Your task to perform on an android device: Show the shopping cart on walmart. Search for razer blade on walmart, select the first entry, add it to the cart, then select checkout. Image 0: 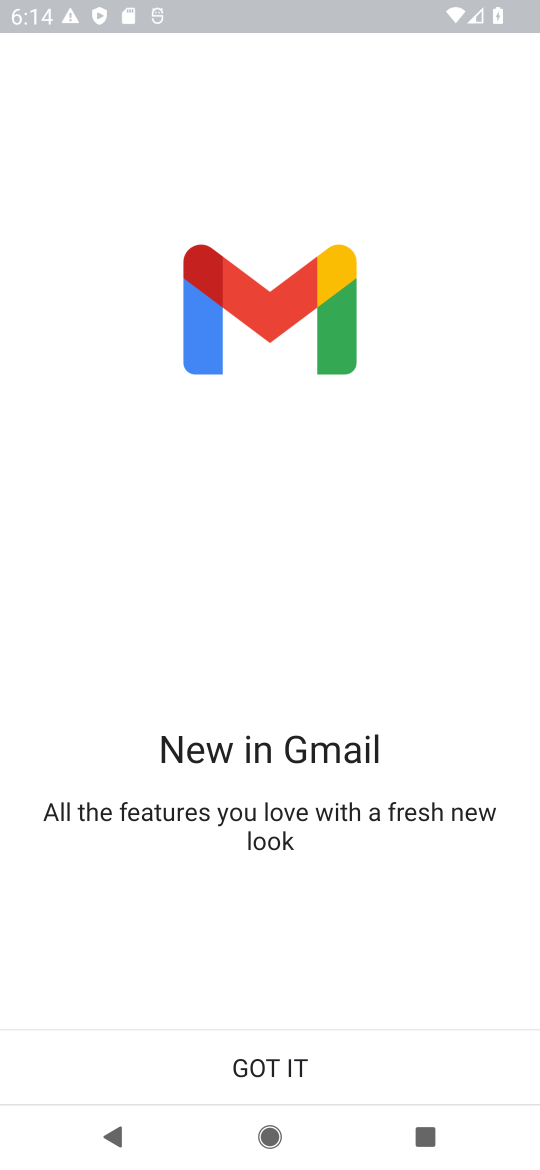
Step 0: press home button
Your task to perform on an android device: Show the shopping cart on walmart. Search for razer blade on walmart, select the first entry, add it to the cart, then select checkout. Image 1: 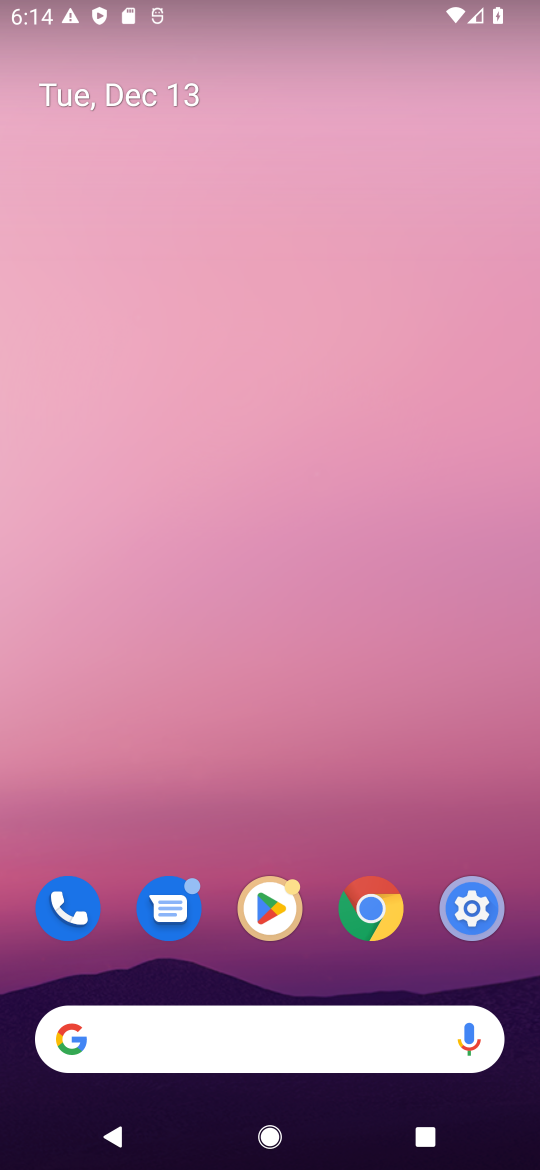
Step 1: click (112, 1031)
Your task to perform on an android device: Show the shopping cart on walmart. Search for razer blade on walmart, select the first entry, add it to the cart, then select checkout. Image 2: 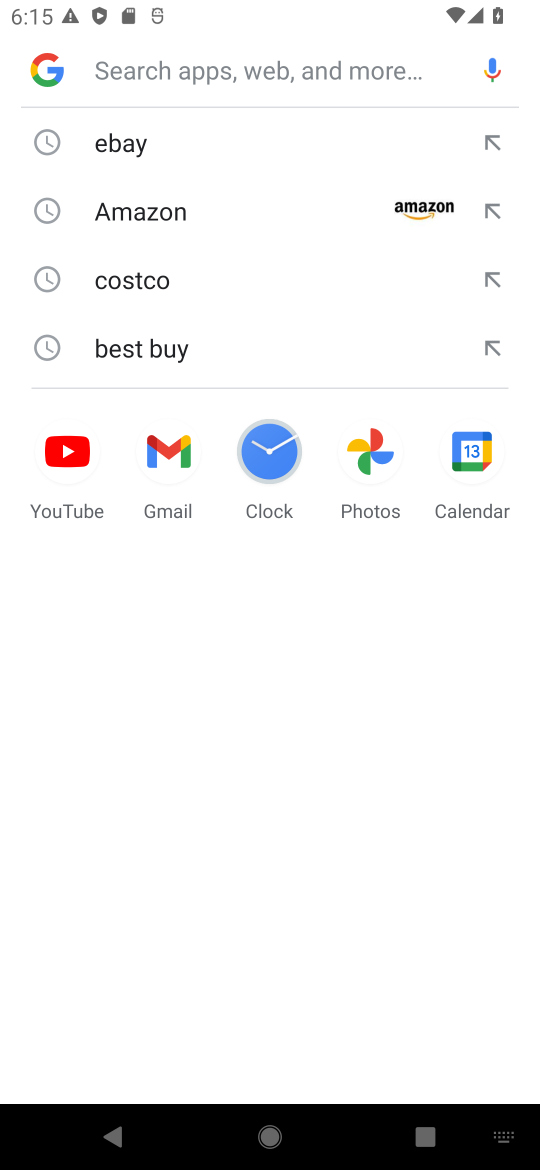
Step 2: type "walmart"
Your task to perform on an android device: Show the shopping cart on walmart. Search for razer blade on walmart, select the first entry, add it to the cart, then select checkout. Image 3: 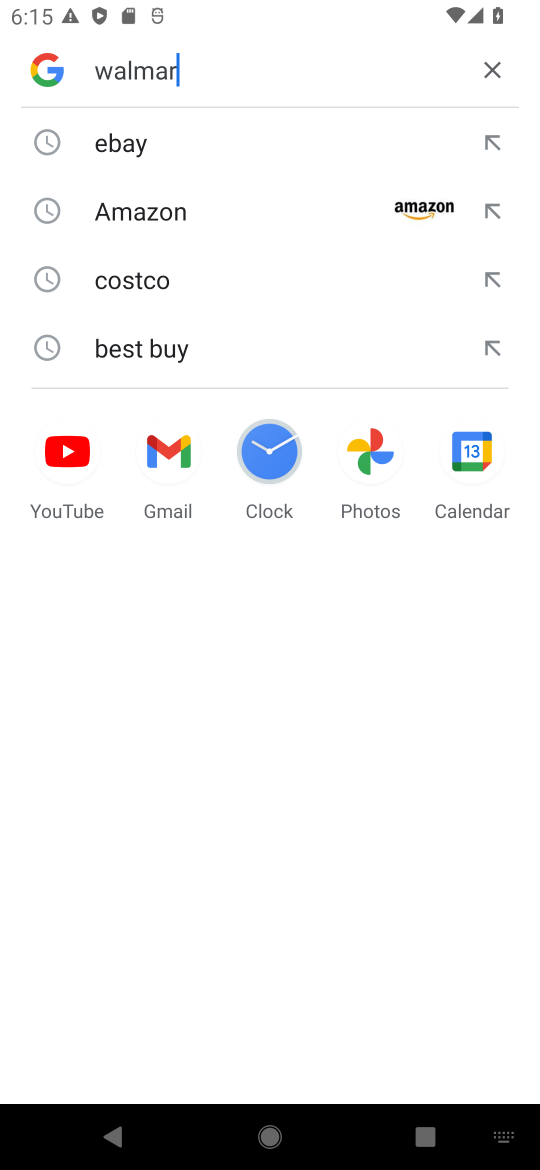
Step 3: press enter
Your task to perform on an android device: Show the shopping cart on walmart. Search for razer blade on walmart, select the first entry, add it to the cart, then select checkout. Image 4: 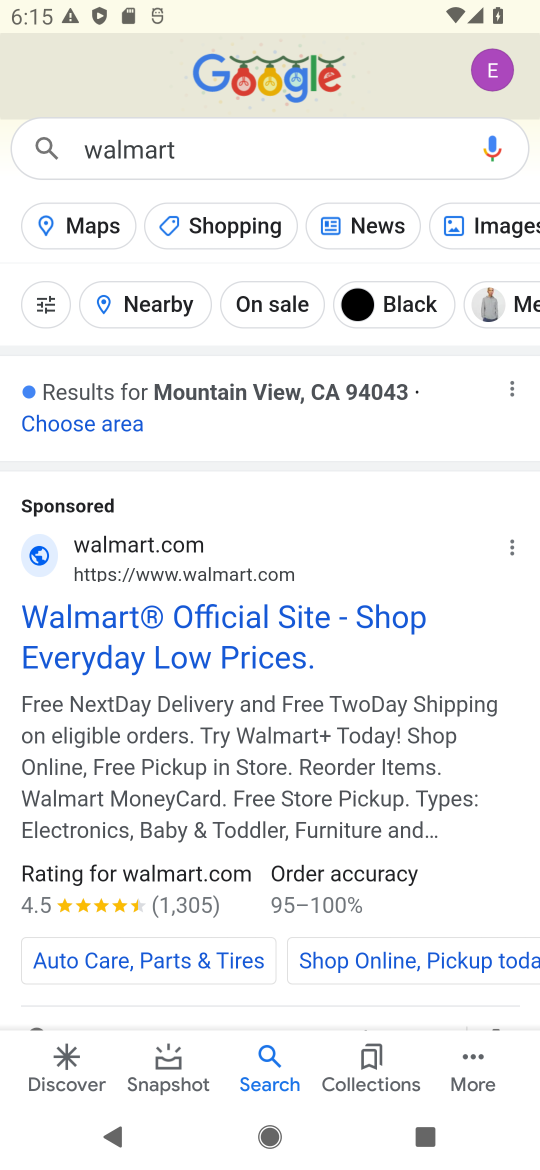
Step 4: click (191, 628)
Your task to perform on an android device: Show the shopping cart on walmart. Search for razer blade on walmart, select the first entry, add it to the cart, then select checkout. Image 5: 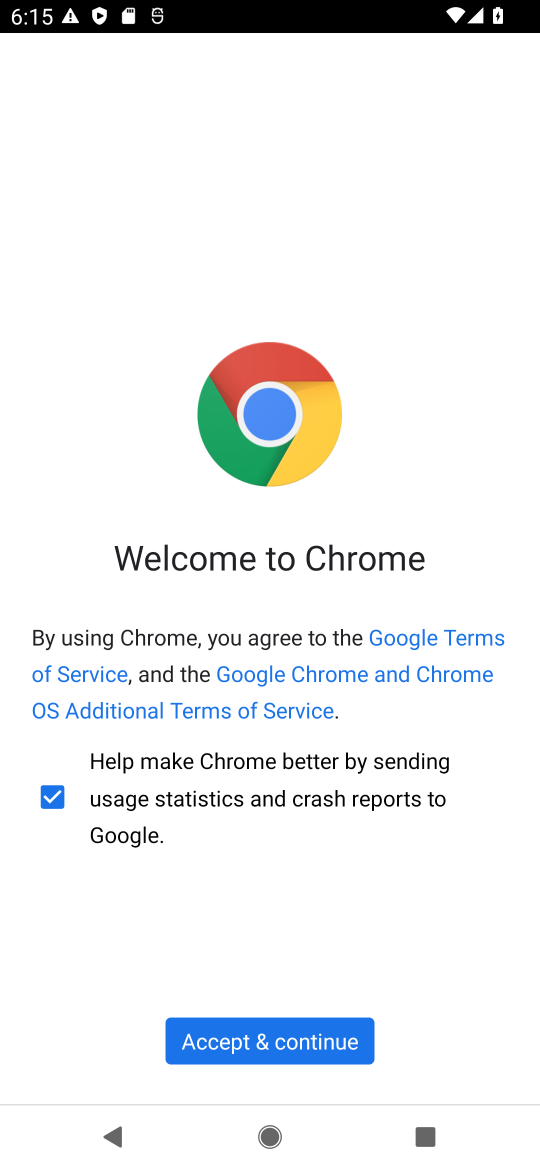
Step 5: click (230, 1045)
Your task to perform on an android device: Show the shopping cart on walmart. Search for razer blade on walmart, select the first entry, add it to the cart, then select checkout. Image 6: 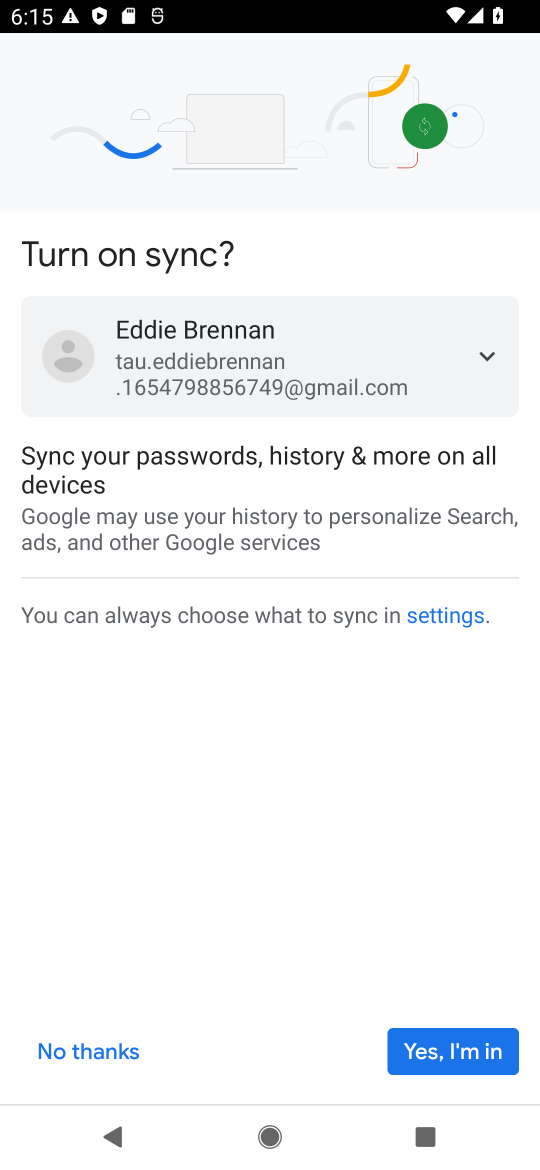
Step 6: click (452, 1055)
Your task to perform on an android device: Show the shopping cart on walmart. Search for razer blade on walmart, select the first entry, add it to the cart, then select checkout. Image 7: 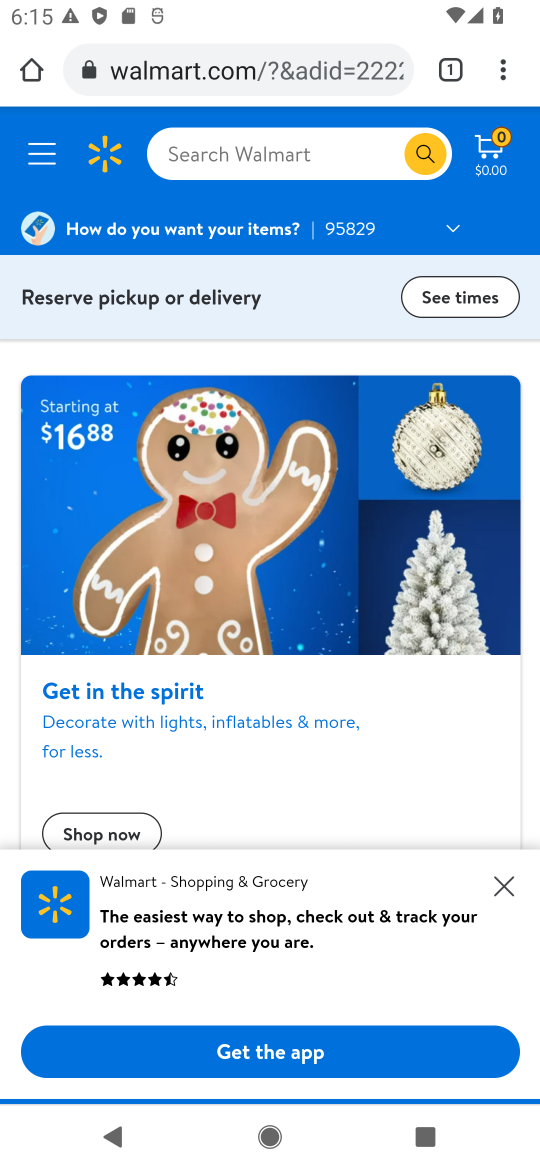
Step 7: click (489, 147)
Your task to perform on an android device: Show the shopping cart on walmart. Search for razer blade on walmart, select the first entry, add it to the cart, then select checkout. Image 8: 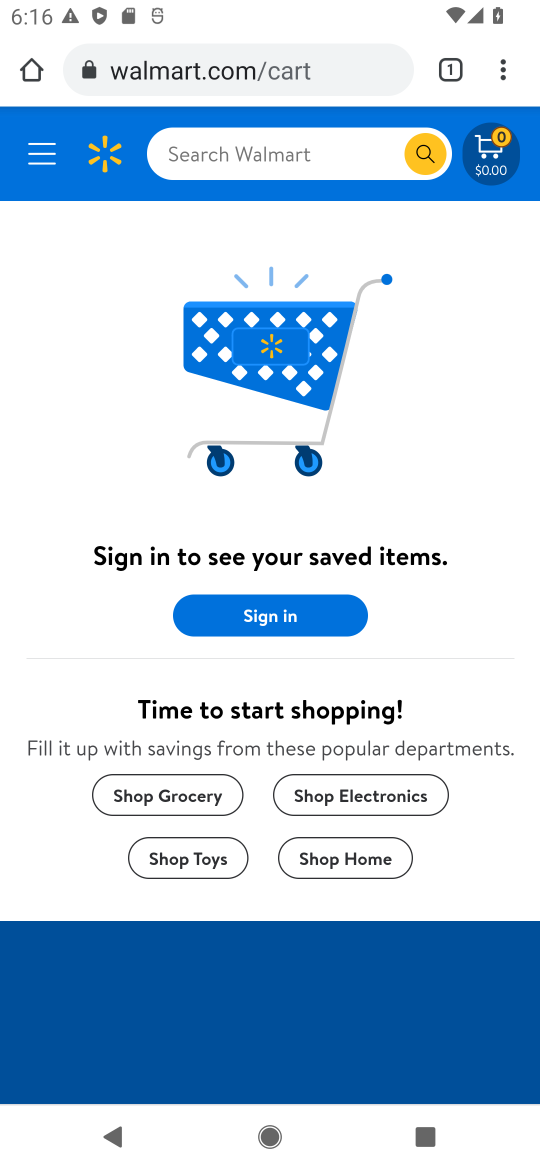
Step 8: click (257, 151)
Your task to perform on an android device: Show the shopping cart on walmart. Search for razer blade on walmart, select the first entry, add it to the cart, then select checkout. Image 9: 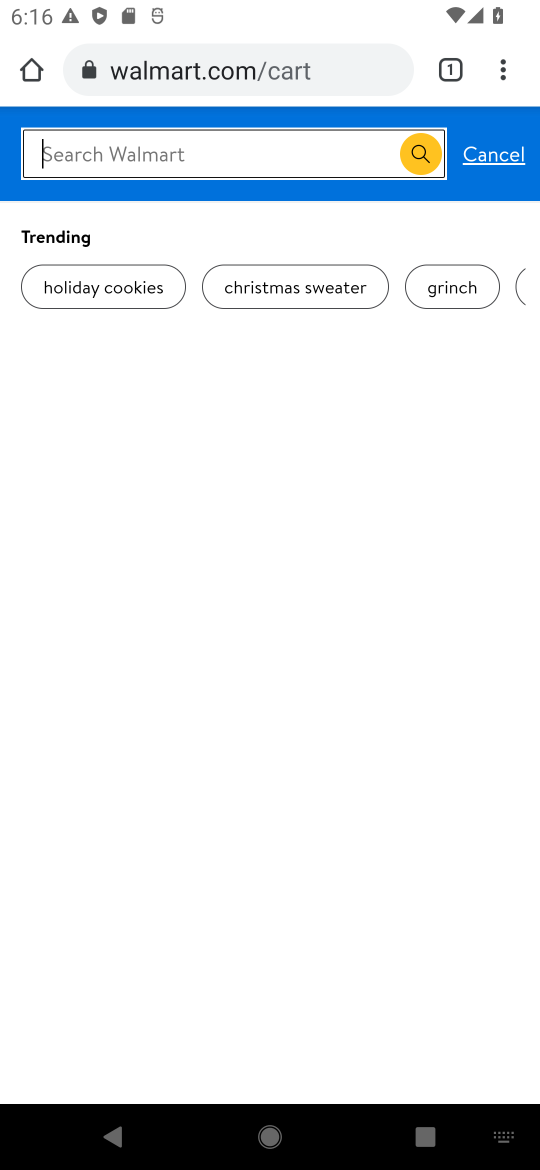
Step 9: press enter
Your task to perform on an android device: Show the shopping cart on walmart. Search for razer blade on walmart, select the first entry, add it to the cart, then select checkout. Image 10: 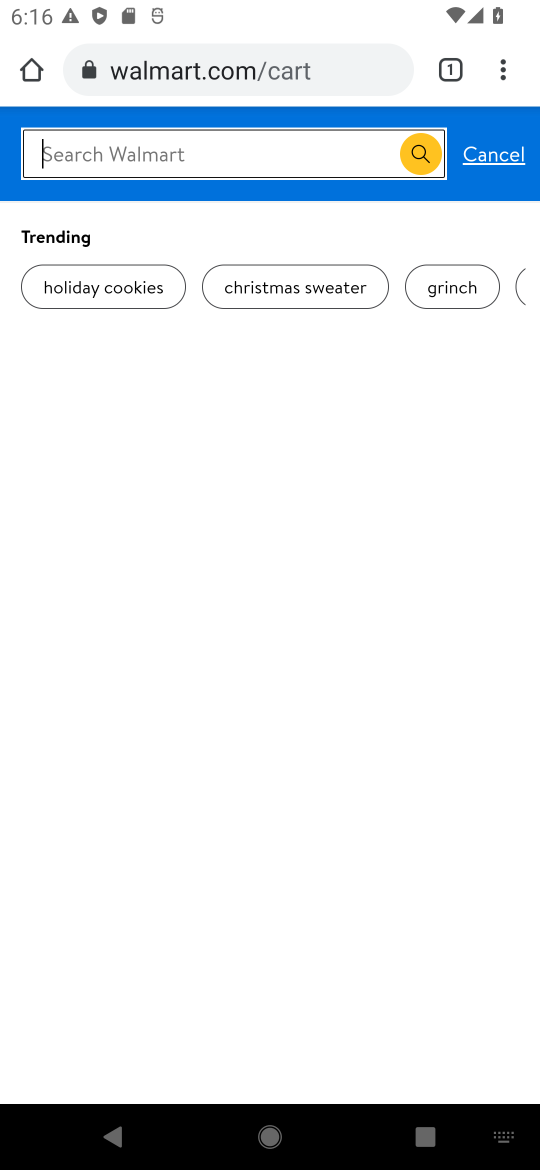
Step 10: type "razer blade "
Your task to perform on an android device: Show the shopping cart on walmart. Search for razer blade on walmart, select the first entry, add it to the cart, then select checkout. Image 11: 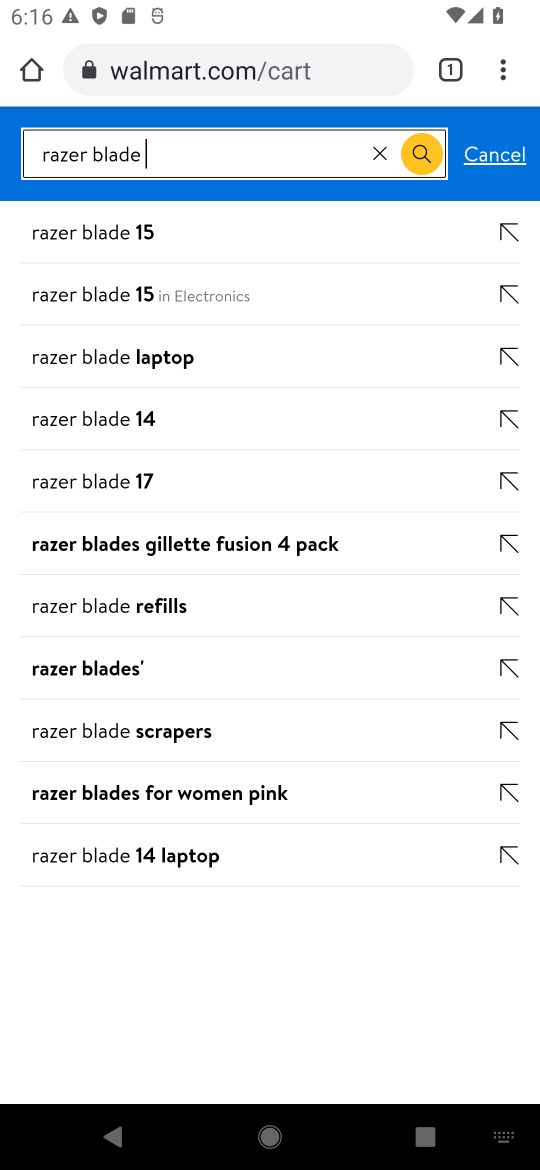
Step 11: press enter
Your task to perform on an android device: Show the shopping cart on walmart. Search for razer blade on walmart, select the first entry, add it to the cart, then select checkout. Image 12: 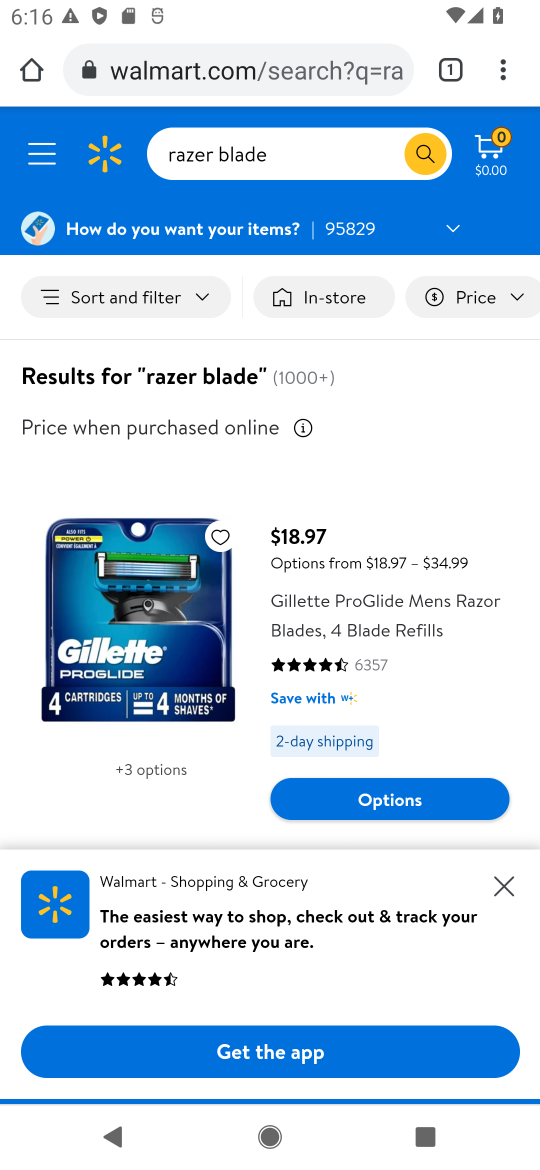
Step 12: click (499, 886)
Your task to perform on an android device: Show the shopping cart on walmart. Search for razer blade on walmart, select the first entry, add it to the cart, then select checkout. Image 13: 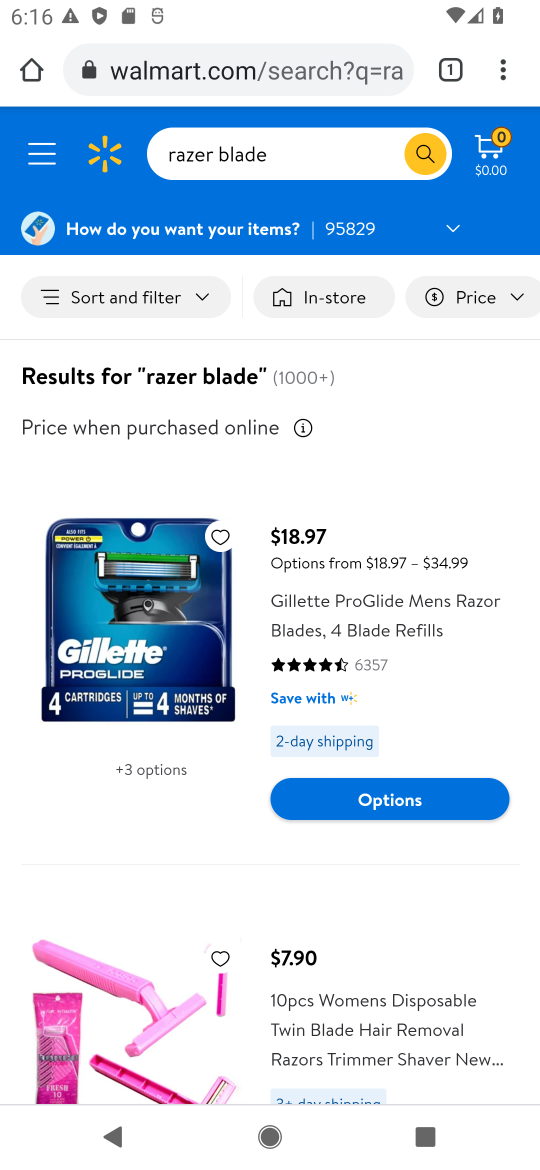
Step 13: click (387, 601)
Your task to perform on an android device: Show the shopping cart on walmart. Search for razer blade on walmart, select the first entry, add it to the cart, then select checkout. Image 14: 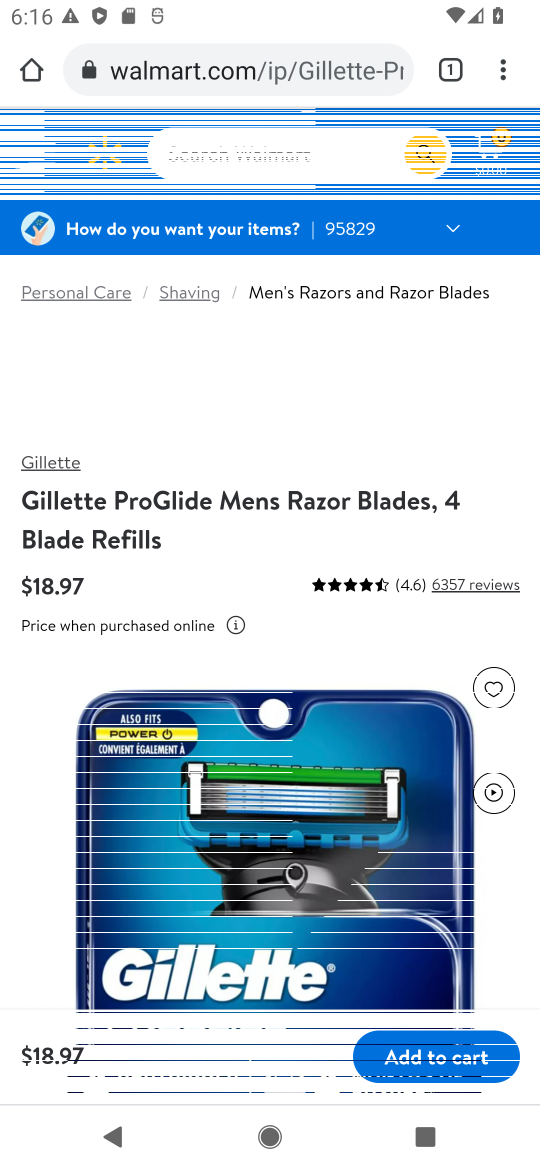
Step 14: drag from (254, 758) to (258, 342)
Your task to perform on an android device: Show the shopping cart on walmart. Search for razer blade on walmart, select the first entry, add it to the cart, then select checkout. Image 15: 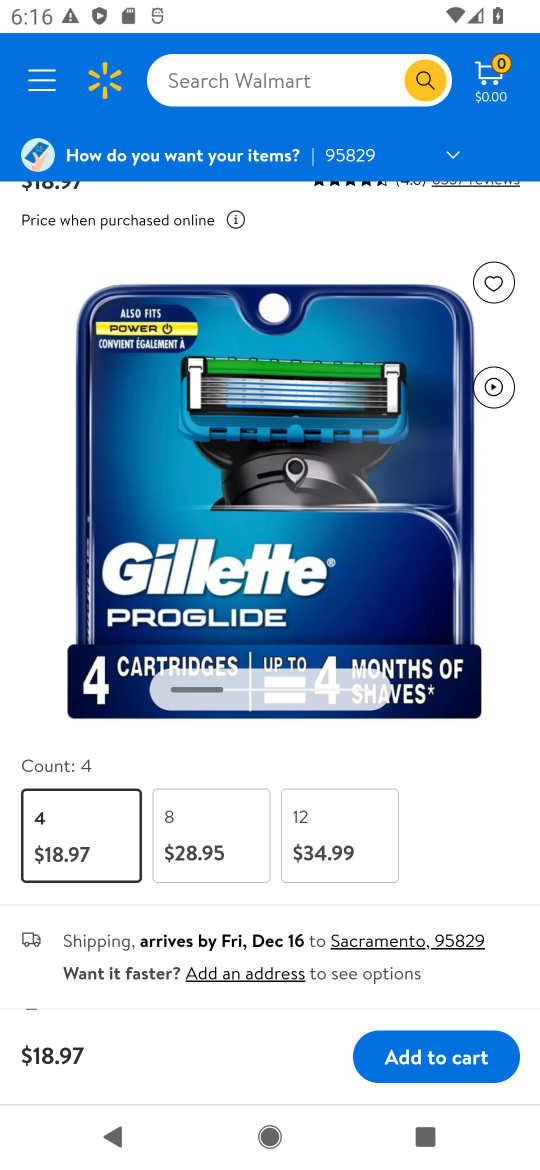
Step 15: click (453, 1051)
Your task to perform on an android device: Show the shopping cart on walmart. Search for razer blade on walmart, select the first entry, add it to the cart, then select checkout. Image 16: 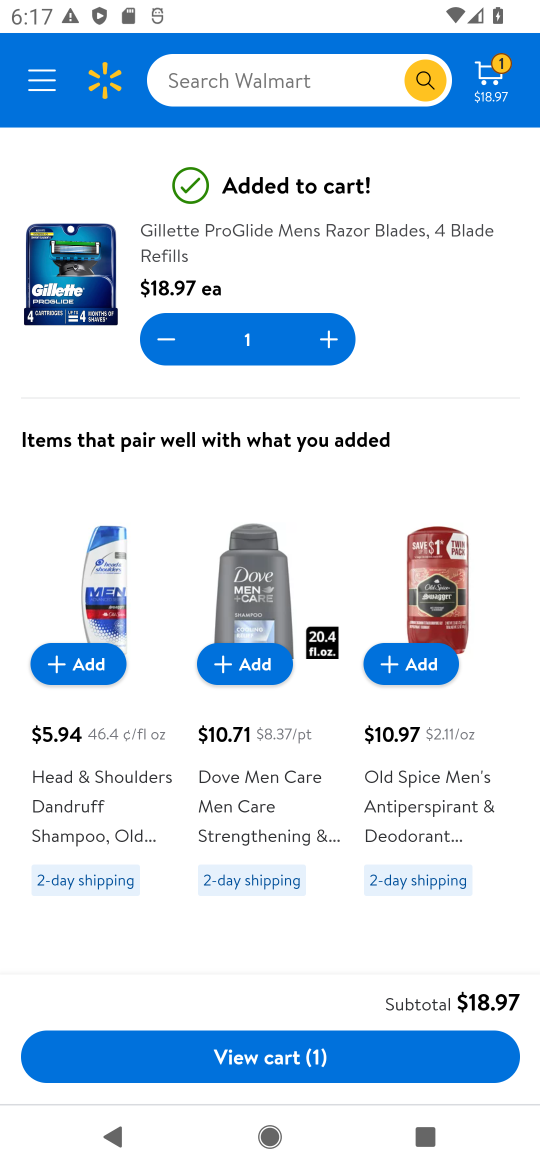
Step 16: task complete